Your task to perform on an android device: What's the weather going to be tomorrow? Image 0: 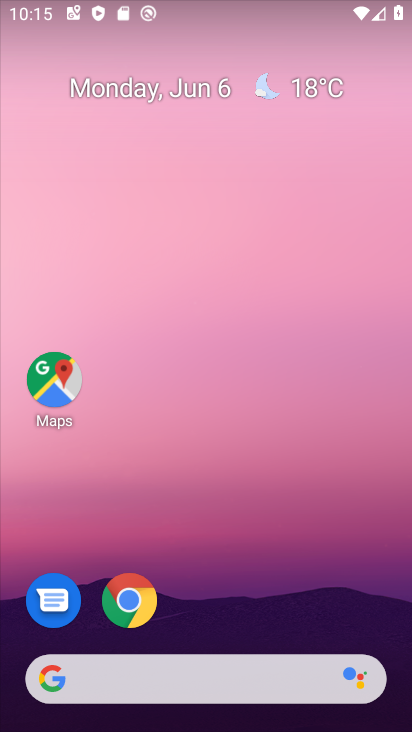
Step 0: drag from (266, 567) to (264, 14)
Your task to perform on an android device: What's the weather going to be tomorrow? Image 1: 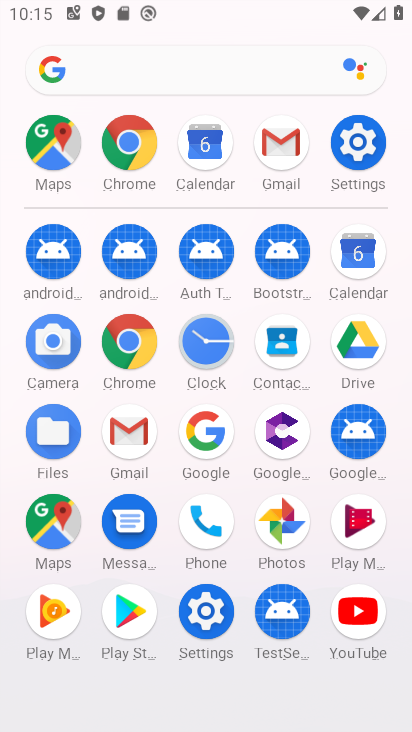
Step 1: drag from (15, 587) to (10, 216)
Your task to perform on an android device: What's the weather going to be tomorrow? Image 2: 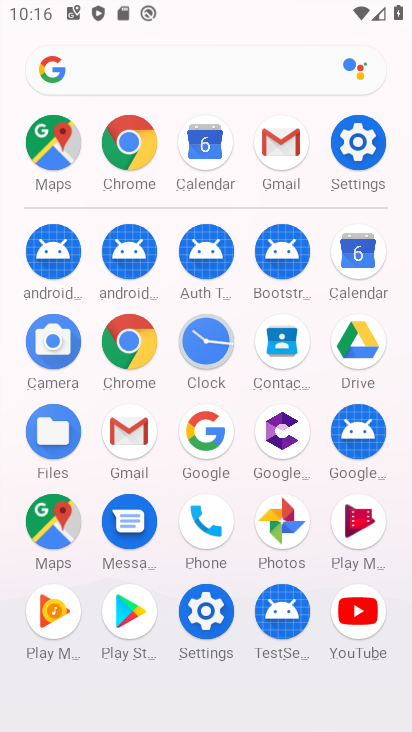
Step 2: click (127, 337)
Your task to perform on an android device: What's the weather going to be tomorrow? Image 3: 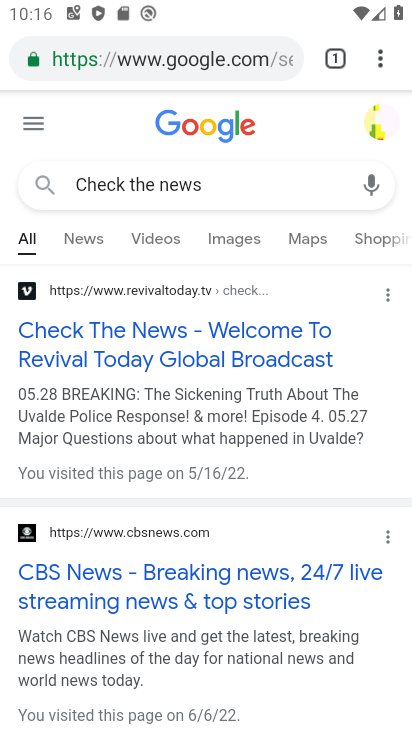
Step 3: click (164, 57)
Your task to perform on an android device: What's the weather going to be tomorrow? Image 4: 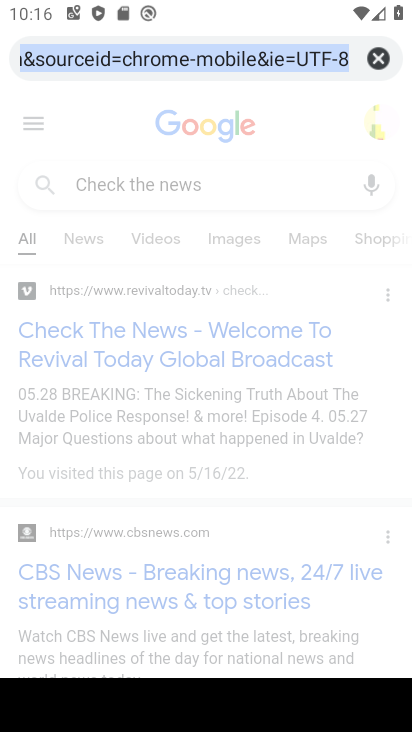
Step 4: click (376, 54)
Your task to perform on an android device: What's the weather going to be tomorrow? Image 5: 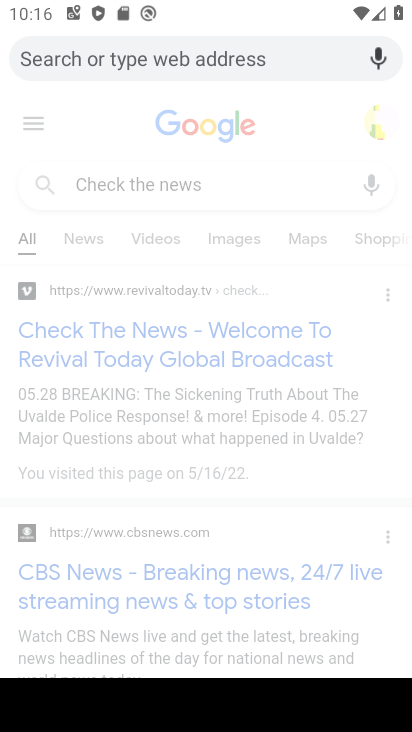
Step 5: type "What's the weather going to be tomorrow?"
Your task to perform on an android device: What's the weather going to be tomorrow? Image 6: 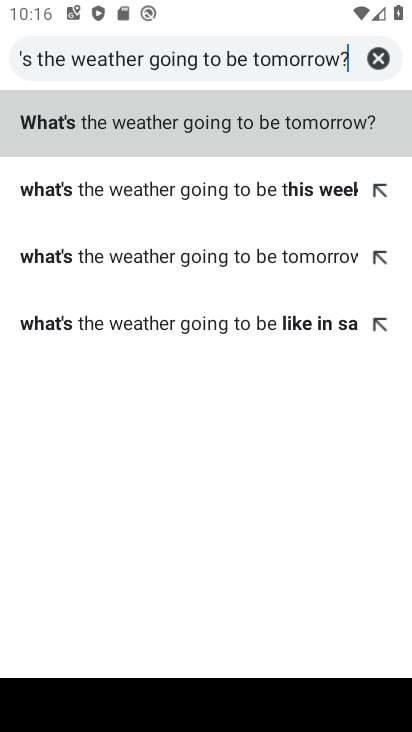
Step 6: type ""
Your task to perform on an android device: What's the weather going to be tomorrow? Image 7: 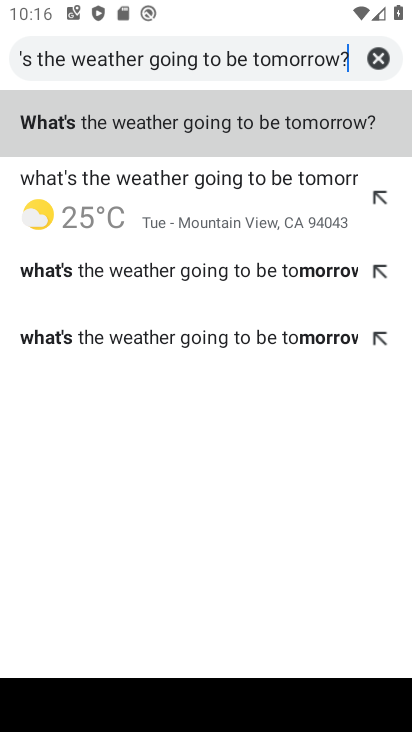
Step 7: click (251, 119)
Your task to perform on an android device: What's the weather going to be tomorrow? Image 8: 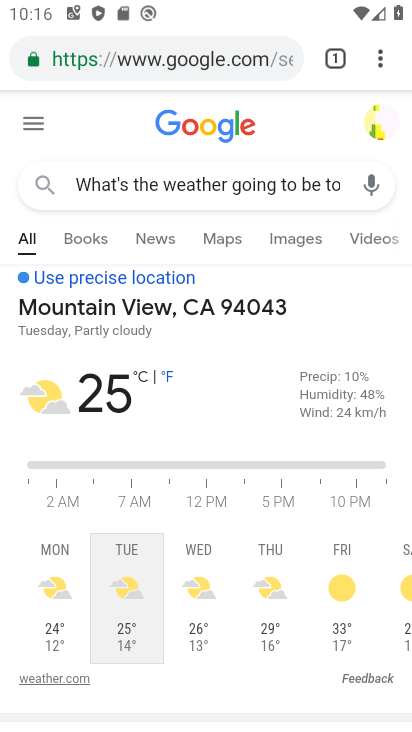
Step 8: task complete